Your task to perform on an android device: Go to CNN.com Image 0: 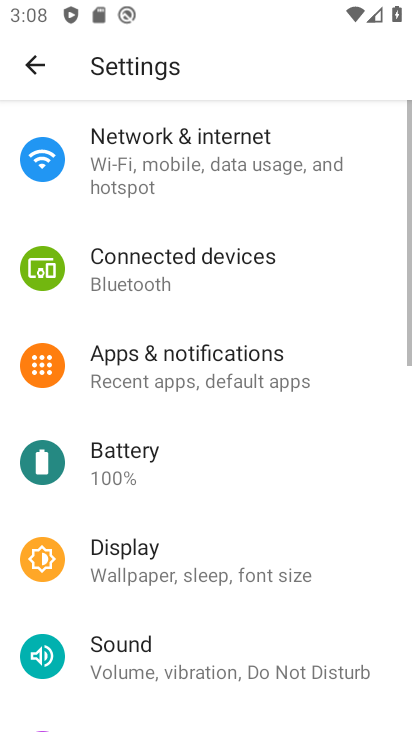
Step 0: press home button
Your task to perform on an android device: Go to CNN.com Image 1: 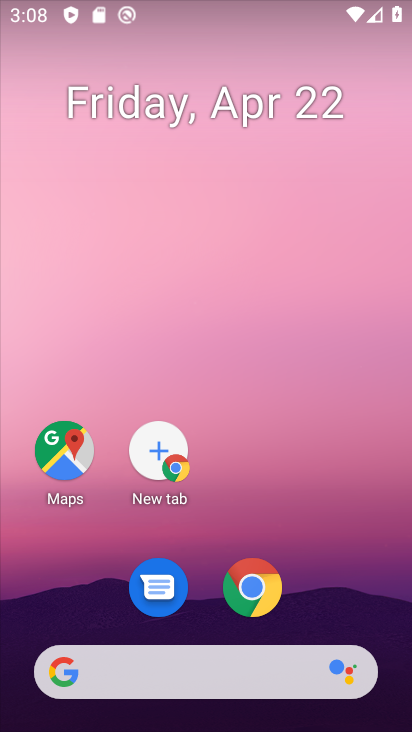
Step 1: click (255, 584)
Your task to perform on an android device: Go to CNN.com Image 2: 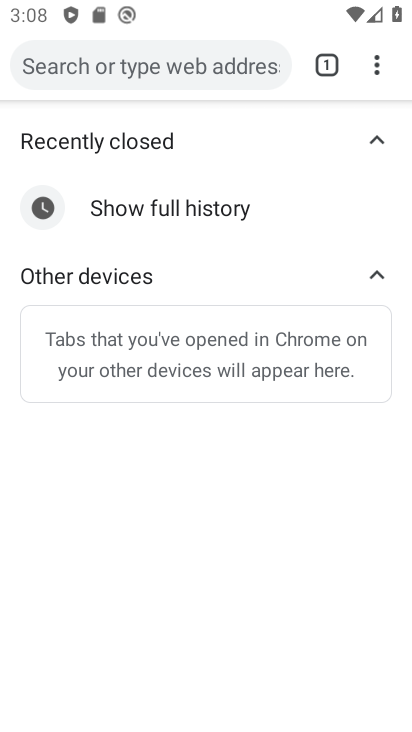
Step 2: click (139, 61)
Your task to perform on an android device: Go to CNN.com Image 3: 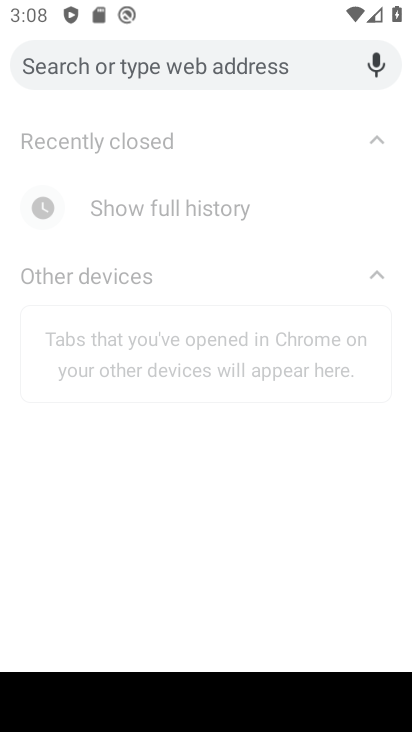
Step 3: type "cnn.com"
Your task to perform on an android device: Go to CNN.com Image 4: 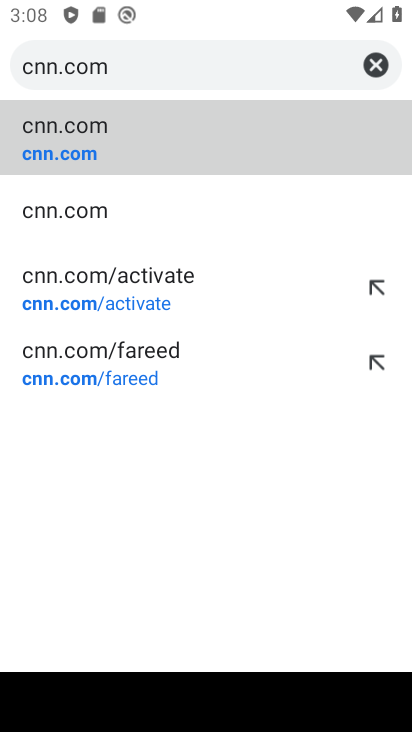
Step 4: click (226, 141)
Your task to perform on an android device: Go to CNN.com Image 5: 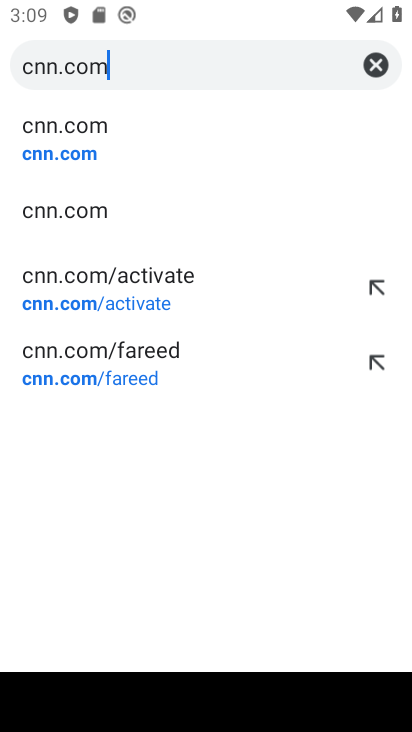
Step 5: click (87, 154)
Your task to perform on an android device: Go to CNN.com Image 6: 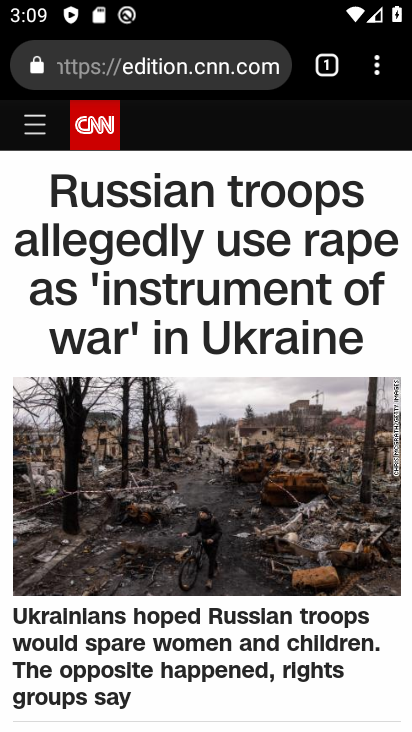
Step 6: task complete